Your task to perform on an android device: toggle improve location accuracy Image 0: 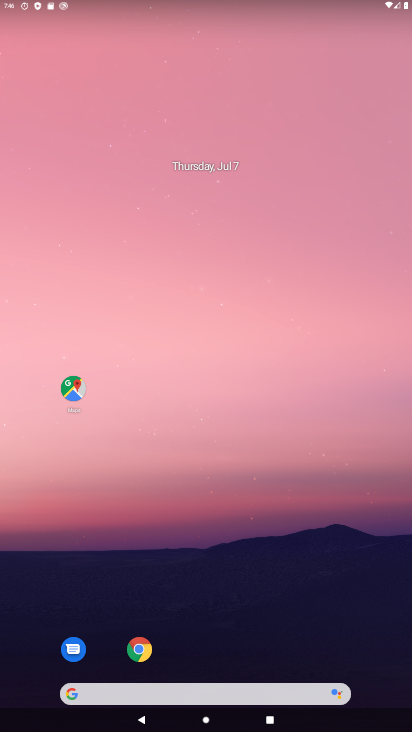
Step 0: press home button
Your task to perform on an android device: toggle improve location accuracy Image 1: 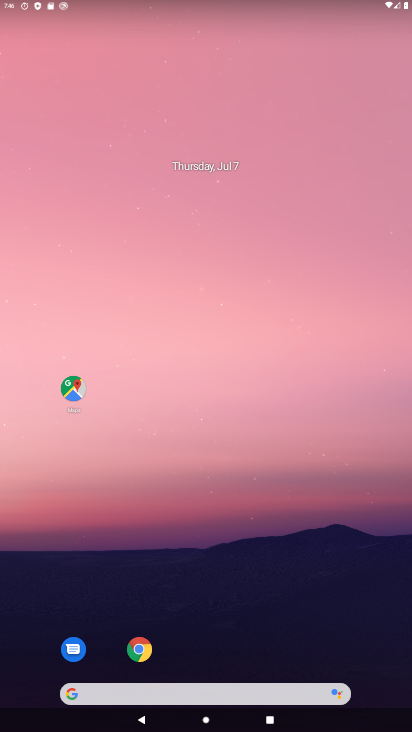
Step 1: drag from (212, 648) to (208, 20)
Your task to perform on an android device: toggle improve location accuracy Image 2: 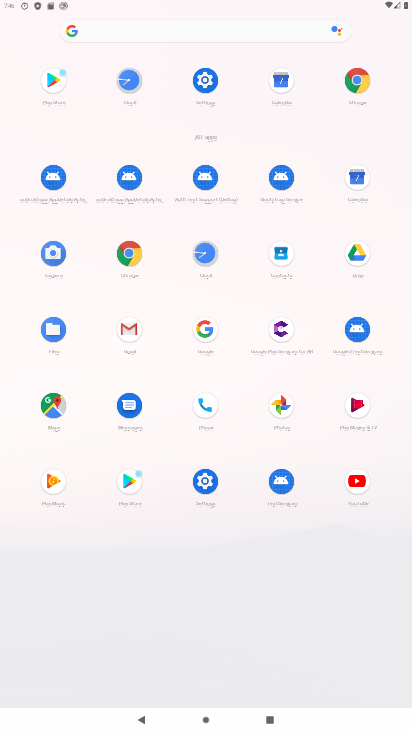
Step 2: click (204, 76)
Your task to perform on an android device: toggle improve location accuracy Image 3: 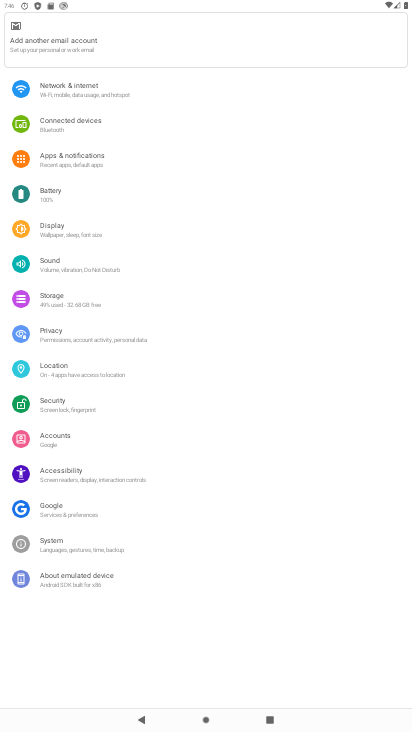
Step 3: click (72, 364)
Your task to perform on an android device: toggle improve location accuracy Image 4: 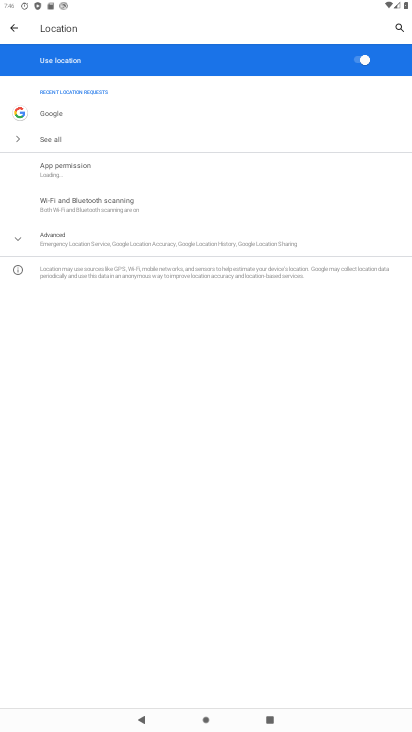
Step 4: click (19, 233)
Your task to perform on an android device: toggle improve location accuracy Image 5: 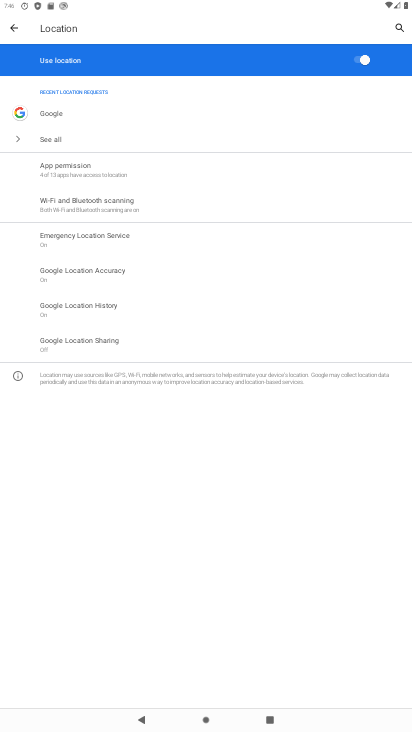
Step 5: click (125, 276)
Your task to perform on an android device: toggle improve location accuracy Image 6: 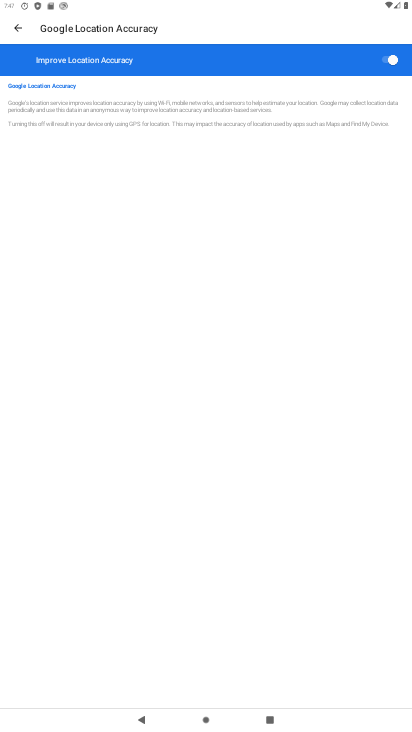
Step 6: task complete